Your task to perform on an android device: move an email to a new category in the gmail app Image 0: 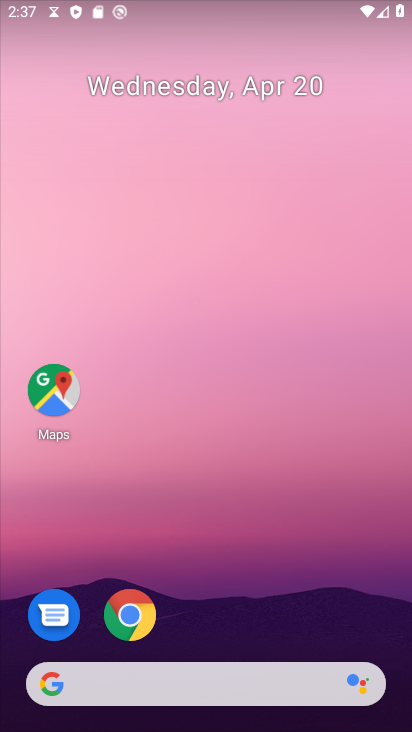
Step 0: drag from (192, 638) to (197, 142)
Your task to perform on an android device: move an email to a new category in the gmail app Image 1: 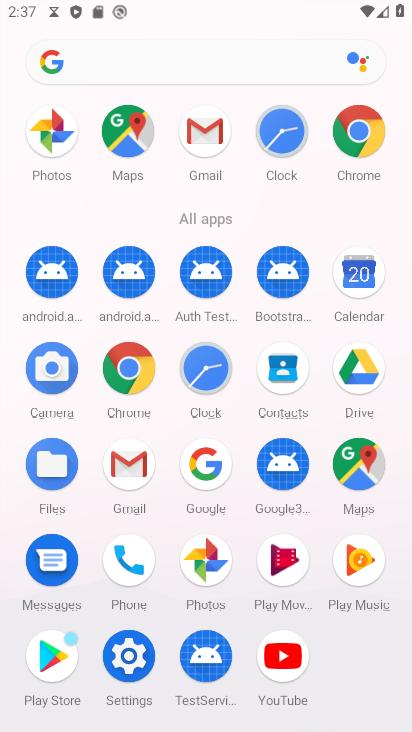
Step 1: click (124, 460)
Your task to perform on an android device: move an email to a new category in the gmail app Image 2: 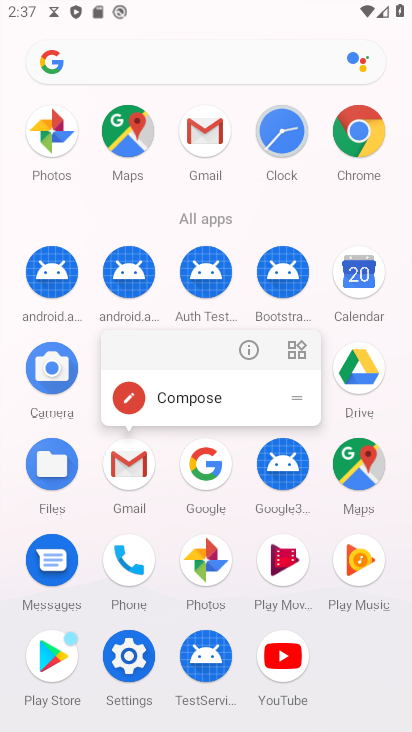
Step 2: click (238, 346)
Your task to perform on an android device: move an email to a new category in the gmail app Image 3: 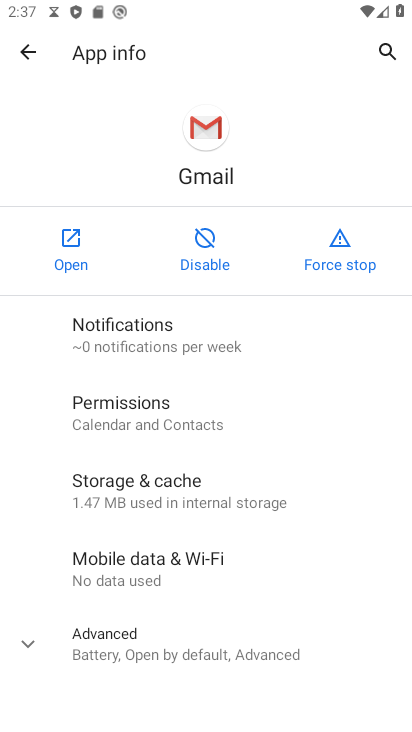
Step 3: click (71, 236)
Your task to perform on an android device: move an email to a new category in the gmail app Image 4: 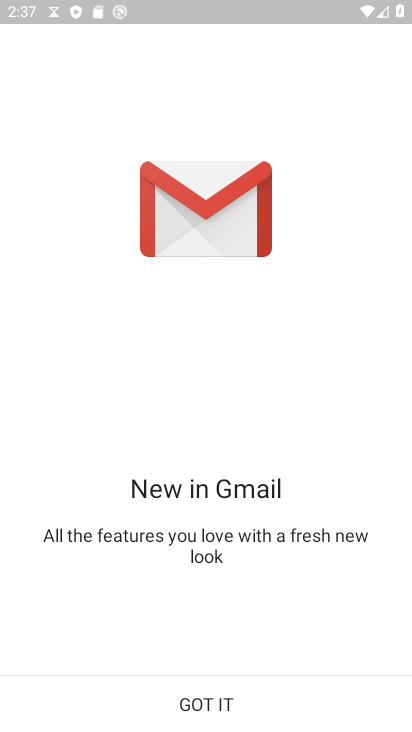
Step 4: click (206, 701)
Your task to perform on an android device: move an email to a new category in the gmail app Image 5: 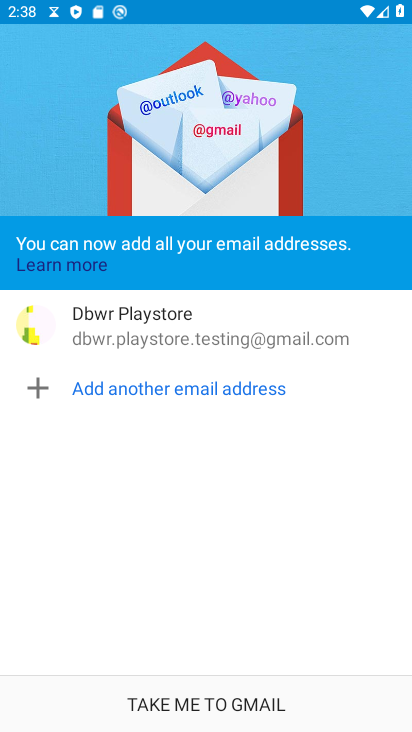
Step 5: click (190, 702)
Your task to perform on an android device: move an email to a new category in the gmail app Image 6: 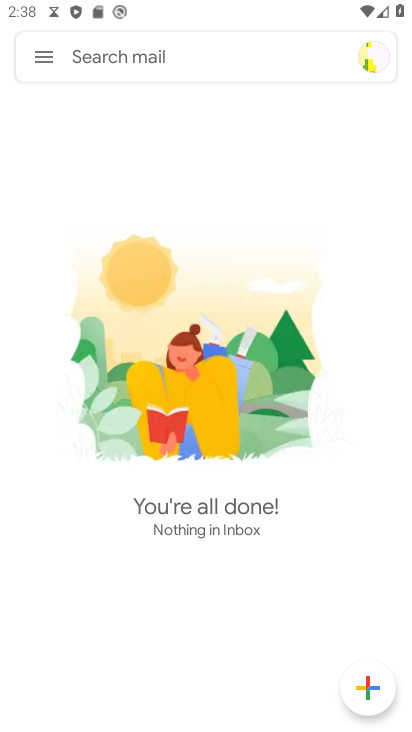
Step 6: task complete